Your task to perform on an android device: turn off notifications settings in the gmail app Image 0: 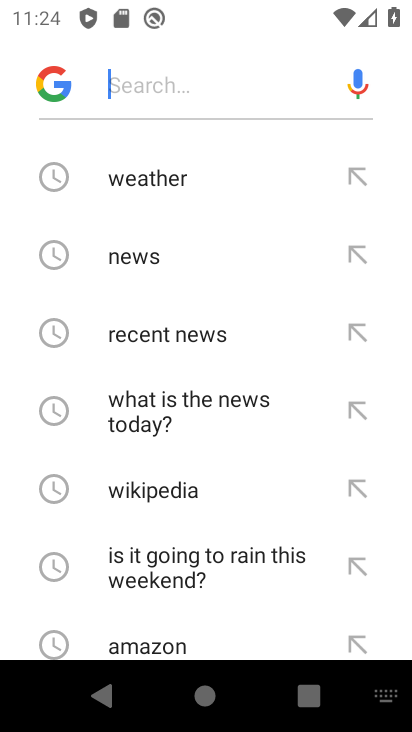
Step 0: press back button
Your task to perform on an android device: turn off notifications settings in the gmail app Image 1: 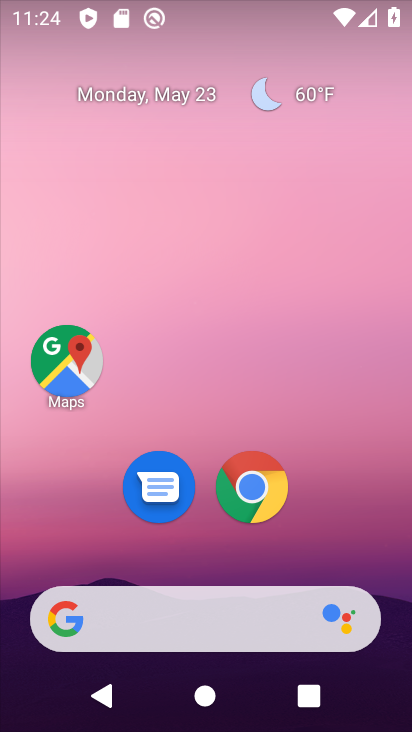
Step 1: press home button
Your task to perform on an android device: turn off notifications settings in the gmail app Image 2: 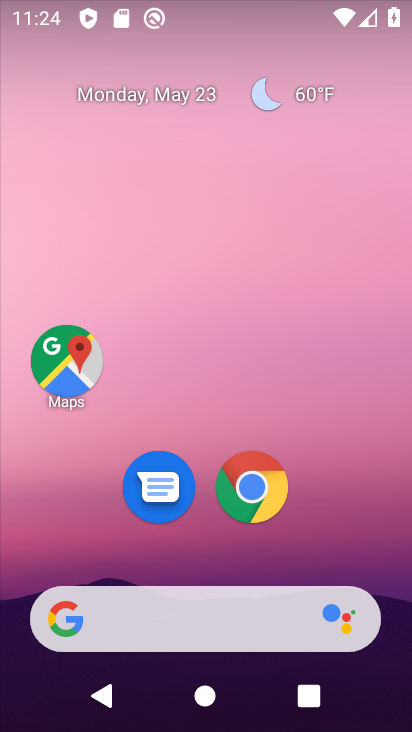
Step 2: drag from (102, 570) to (222, 32)
Your task to perform on an android device: turn off notifications settings in the gmail app Image 3: 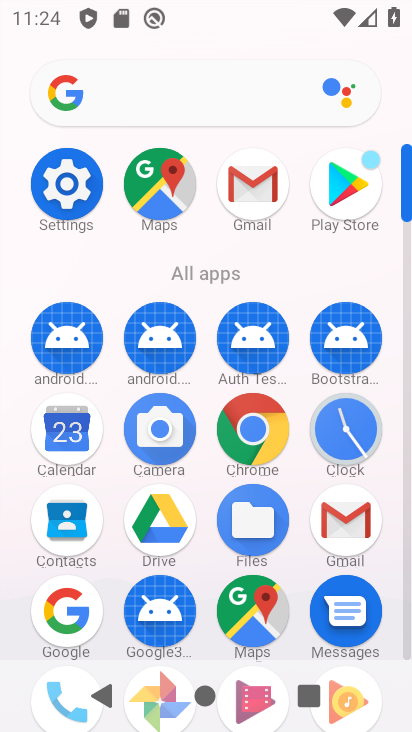
Step 3: click (354, 532)
Your task to perform on an android device: turn off notifications settings in the gmail app Image 4: 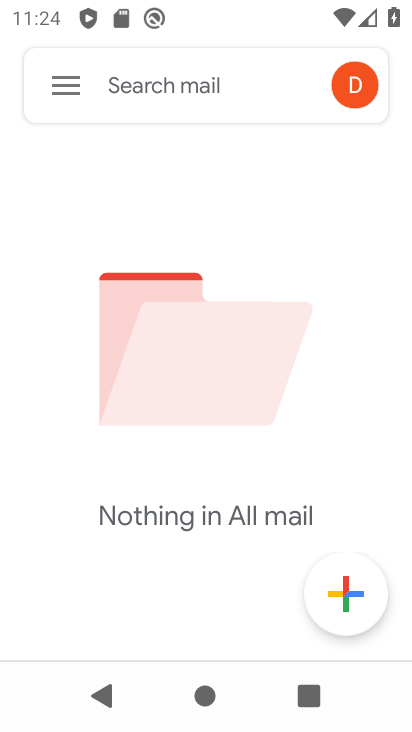
Step 4: click (59, 94)
Your task to perform on an android device: turn off notifications settings in the gmail app Image 5: 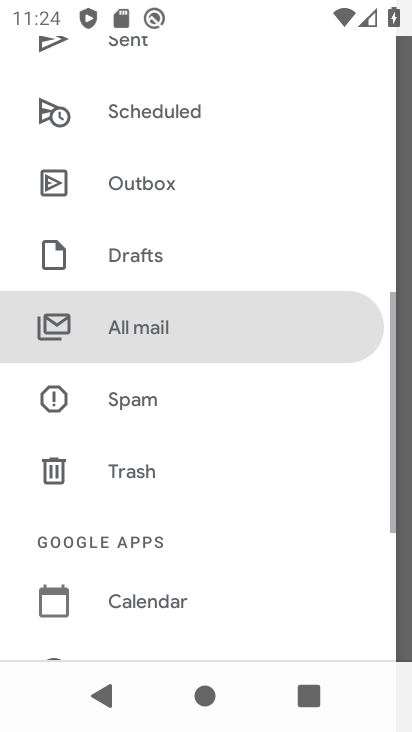
Step 5: drag from (127, 607) to (259, 120)
Your task to perform on an android device: turn off notifications settings in the gmail app Image 6: 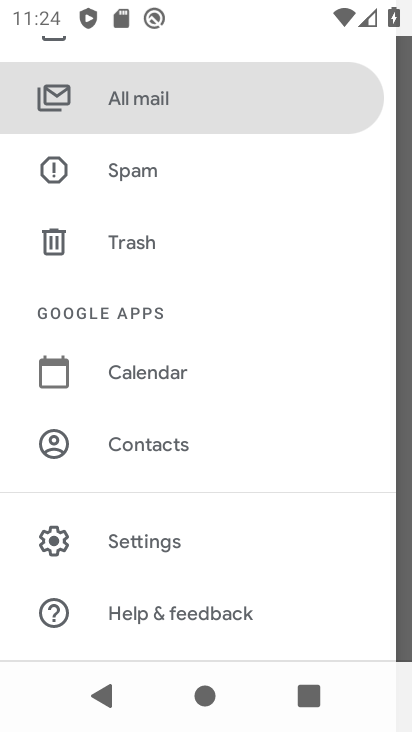
Step 6: click (184, 547)
Your task to perform on an android device: turn off notifications settings in the gmail app Image 7: 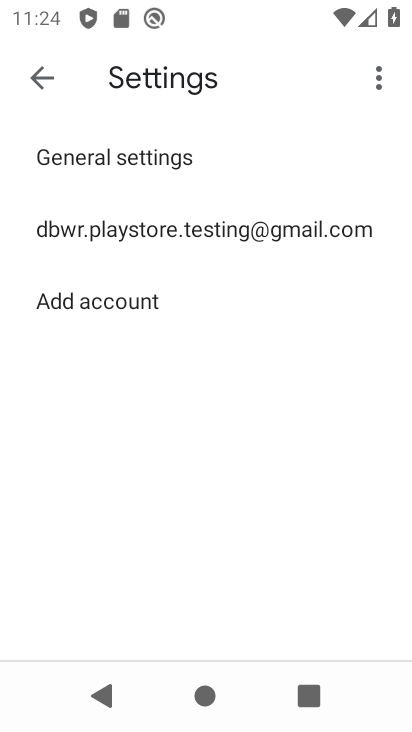
Step 7: click (278, 225)
Your task to perform on an android device: turn off notifications settings in the gmail app Image 8: 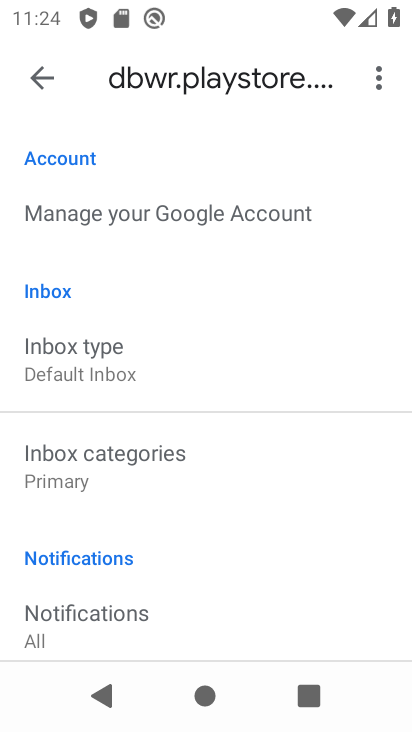
Step 8: drag from (131, 565) to (211, 166)
Your task to perform on an android device: turn off notifications settings in the gmail app Image 9: 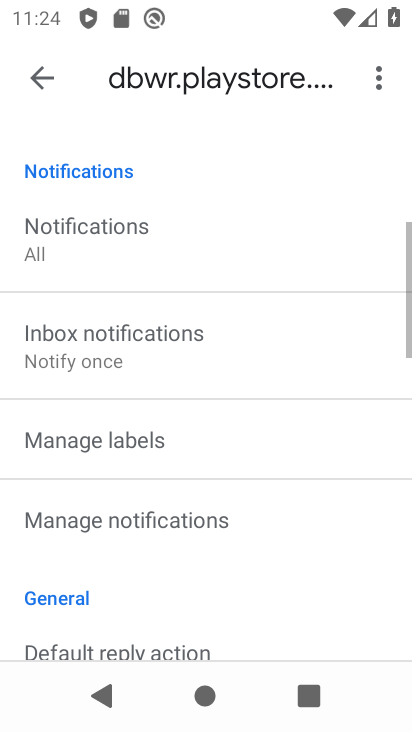
Step 9: click (234, 529)
Your task to perform on an android device: turn off notifications settings in the gmail app Image 10: 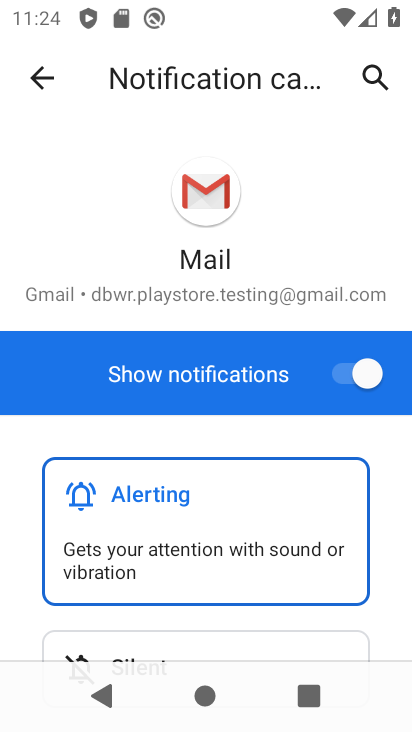
Step 10: click (349, 375)
Your task to perform on an android device: turn off notifications settings in the gmail app Image 11: 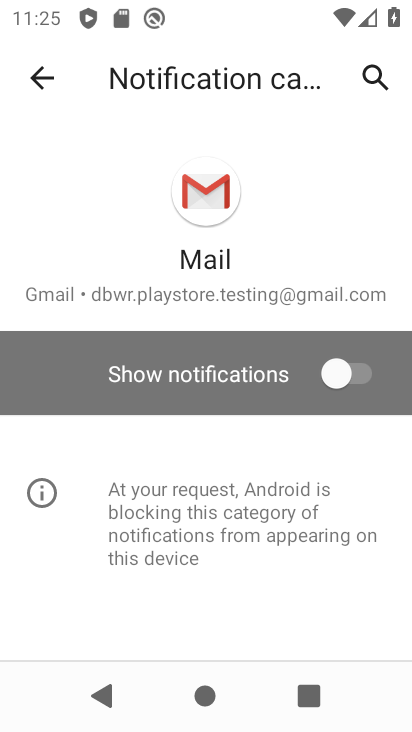
Step 11: task complete